Your task to perform on an android device: View the shopping cart on bestbuy. Search for "alienware area 51" on bestbuy, select the first entry, add it to the cart, then select checkout. Image 0: 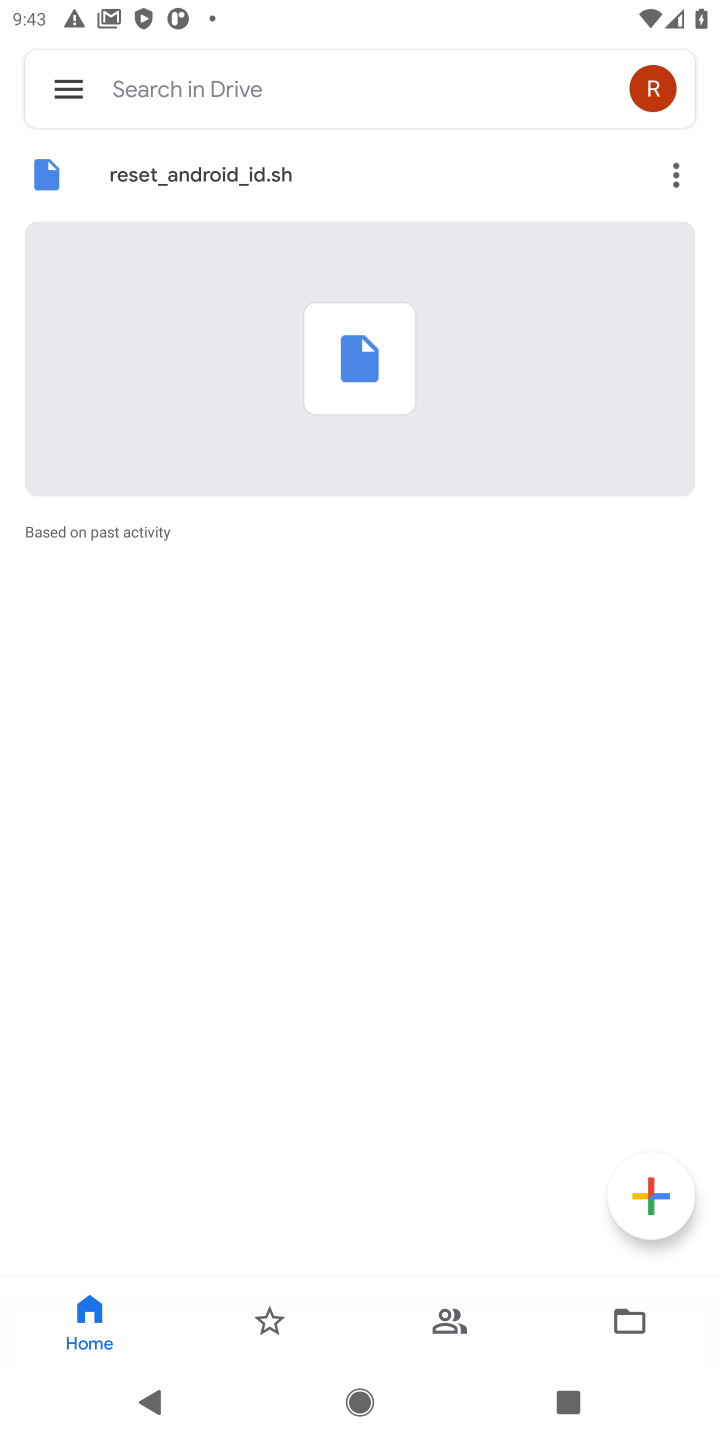
Step 0: press home button
Your task to perform on an android device: View the shopping cart on bestbuy. Search for "alienware area 51" on bestbuy, select the first entry, add it to the cart, then select checkout. Image 1: 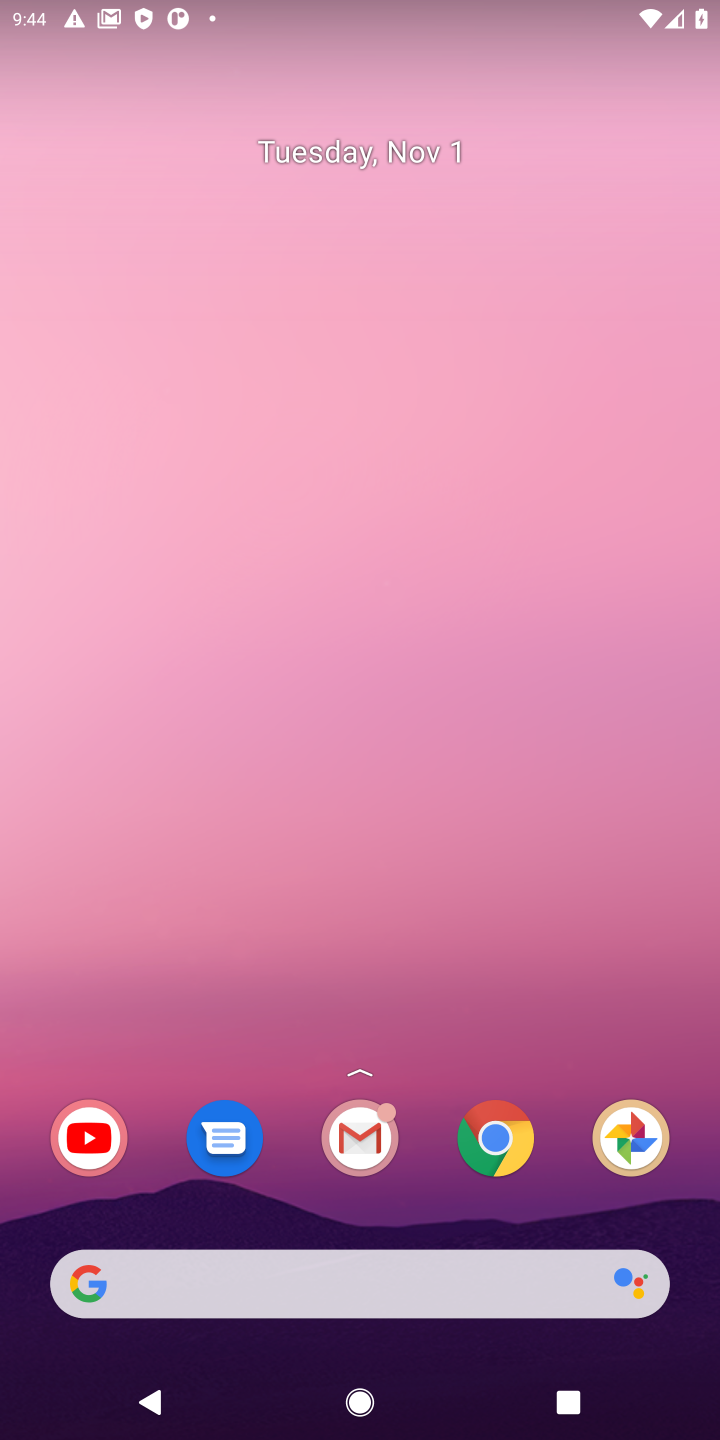
Step 1: click (492, 1154)
Your task to perform on an android device: View the shopping cart on bestbuy. Search for "alienware area 51" on bestbuy, select the first entry, add it to the cart, then select checkout. Image 2: 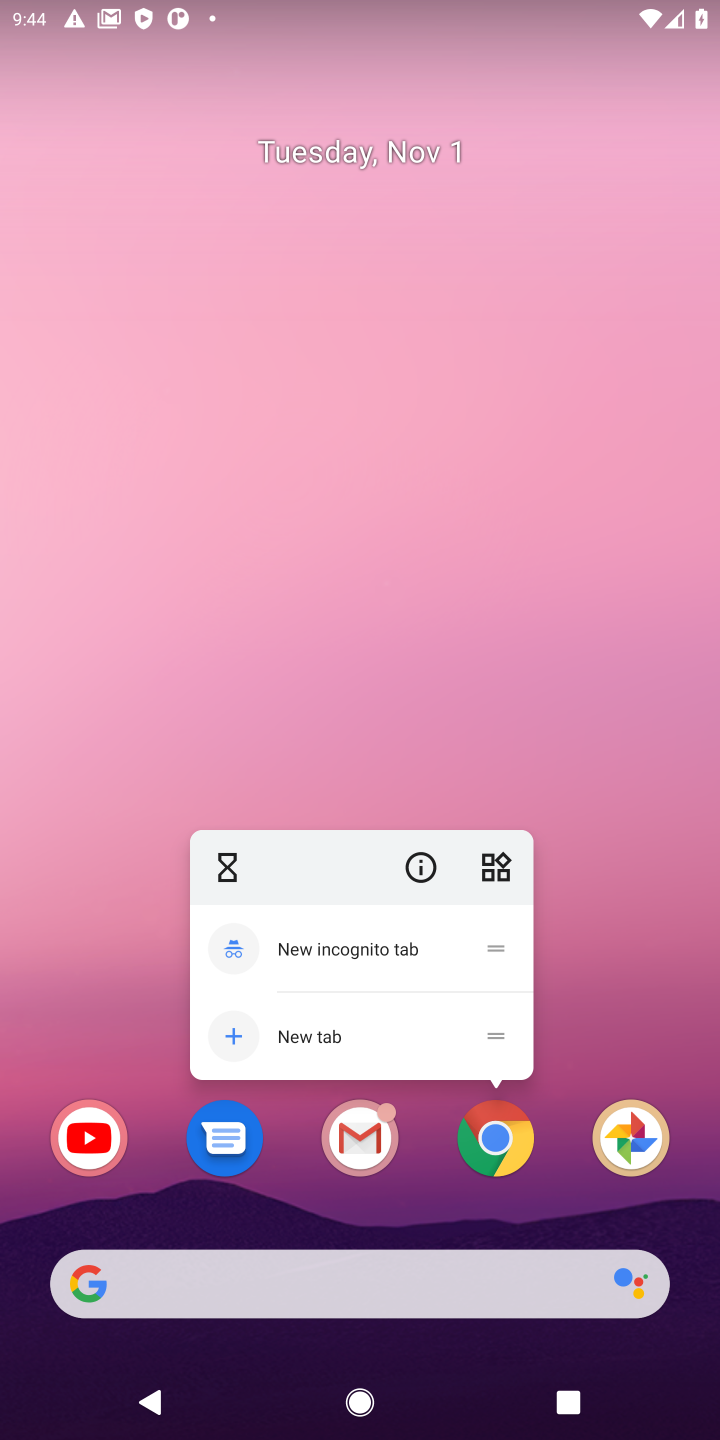
Step 2: click (494, 1154)
Your task to perform on an android device: View the shopping cart on bestbuy. Search for "alienware area 51" on bestbuy, select the first entry, add it to the cart, then select checkout. Image 3: 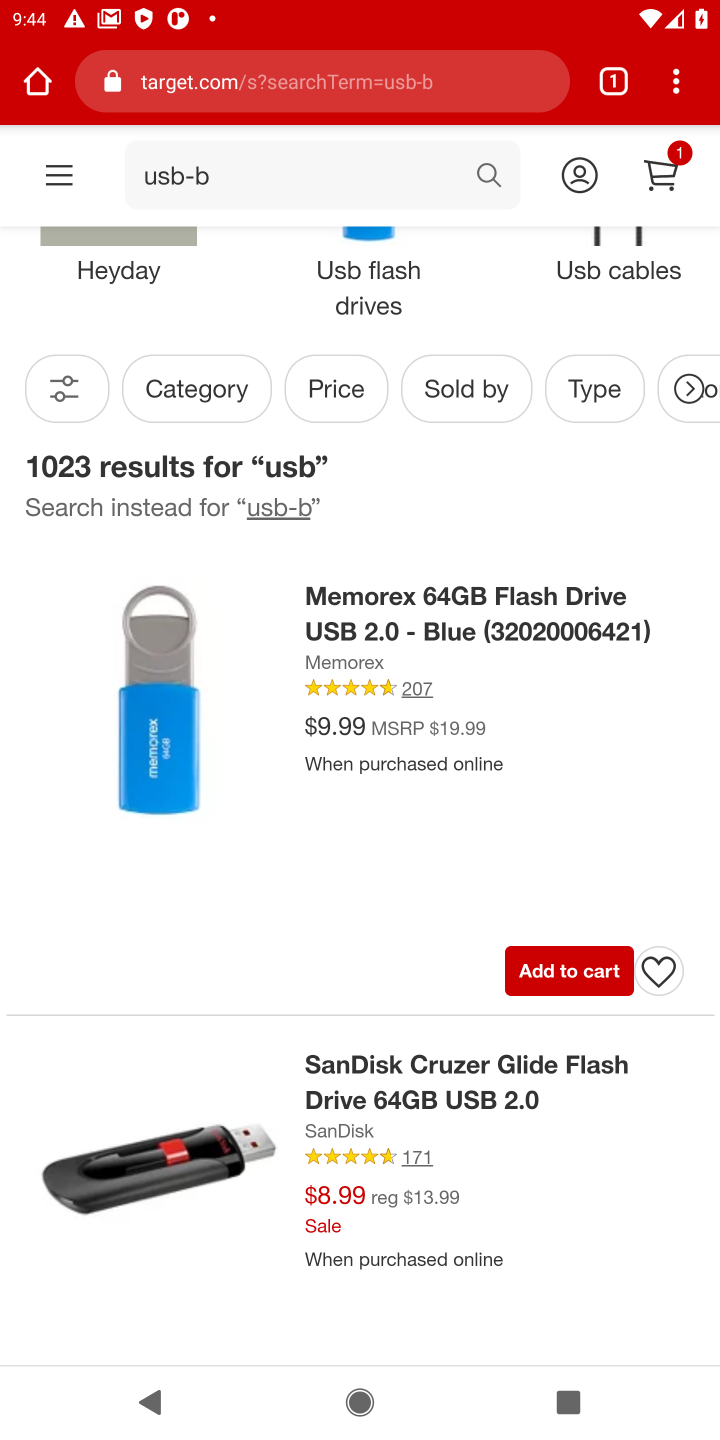
Step 3: click (323, 95)
Your task to perform on an android device: View the shopping cart on bestbuy. Search for "alienware area 51" on bestbuy, select the first entry, add it to the cart, then select checkout. Image 4: 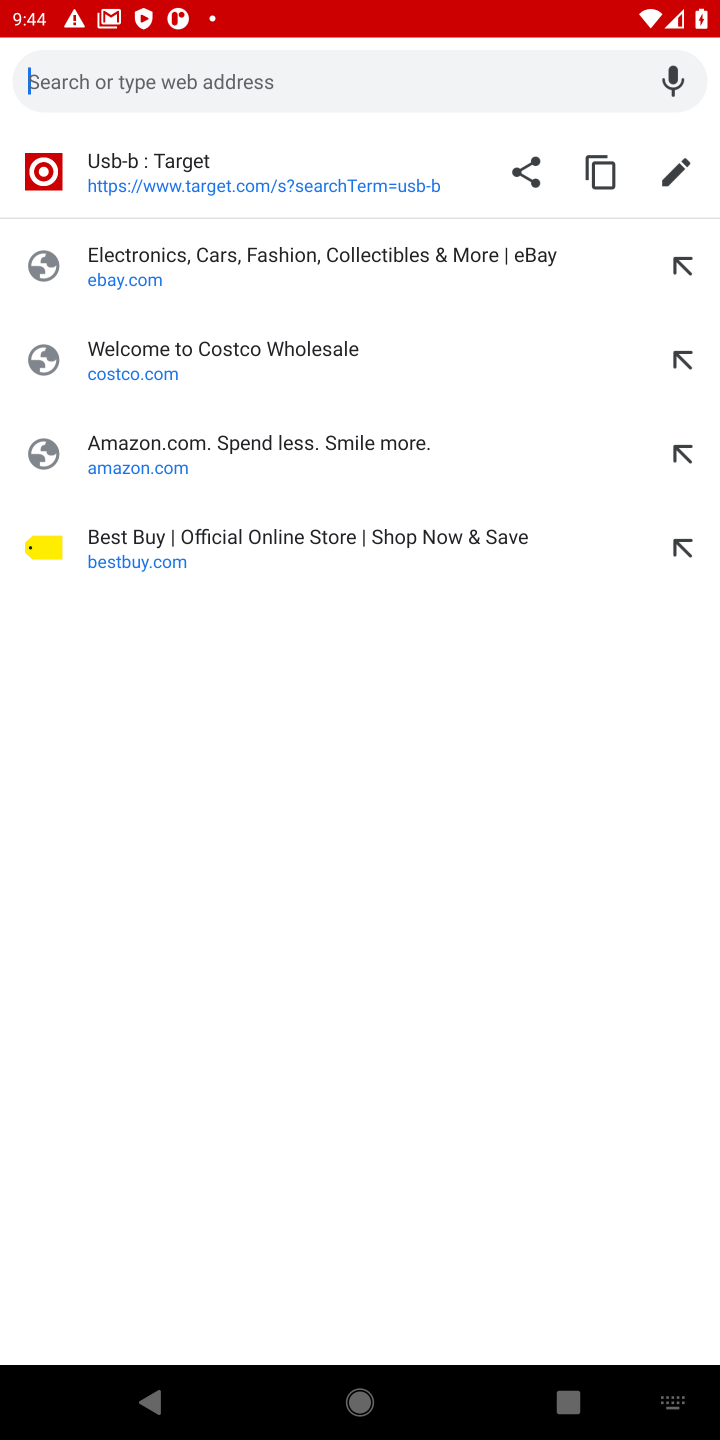
Step 4: click (166, 560)
Your task to perform on an android device: View the shopping cart on bestbuy. Search for "alienware area 51" on bestbuy, select the first entry, add it to the cart, then select checkout. Image 5: 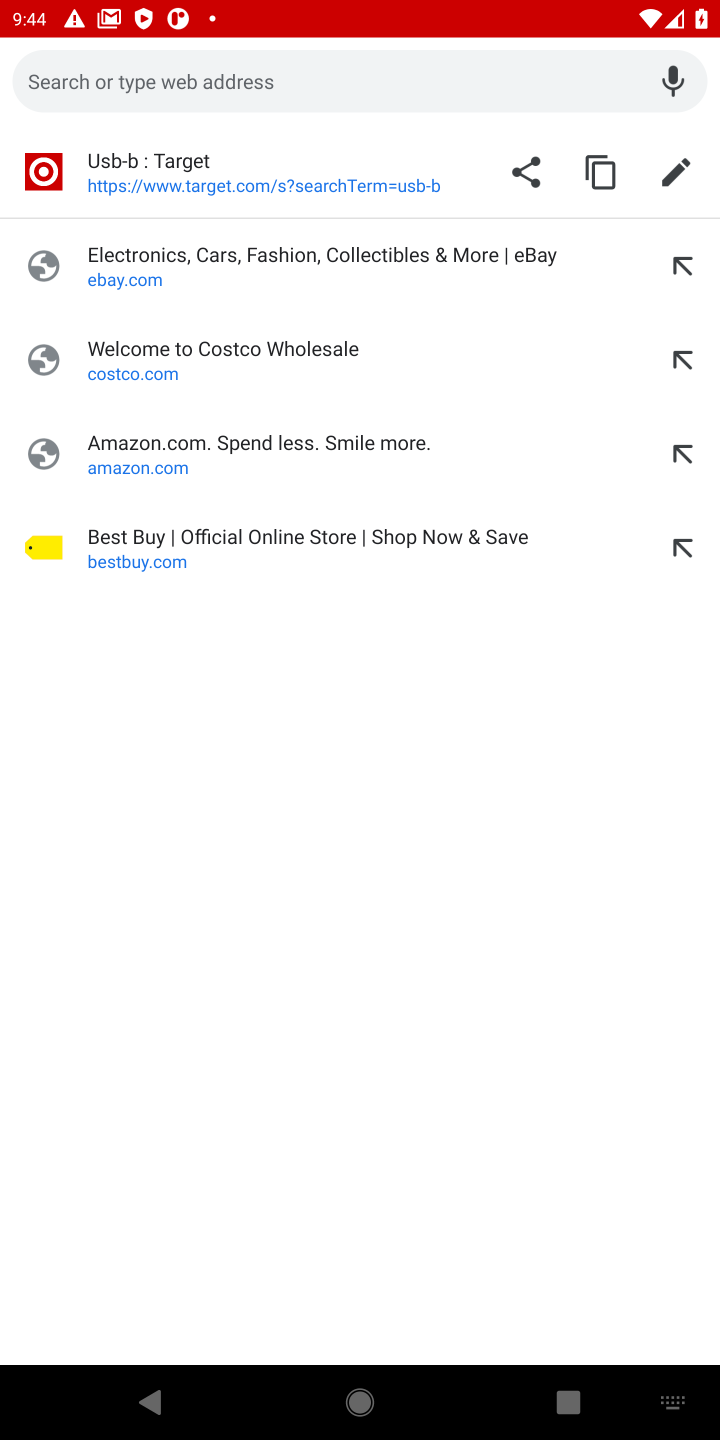
Step 5: click (166, 560)
Your task to perform on an android device: View the shopping cart on bestbuy. Search for "alienware area 51" on bestbuy, select the first entry, add it to the cart, then select checkout. Image 6: 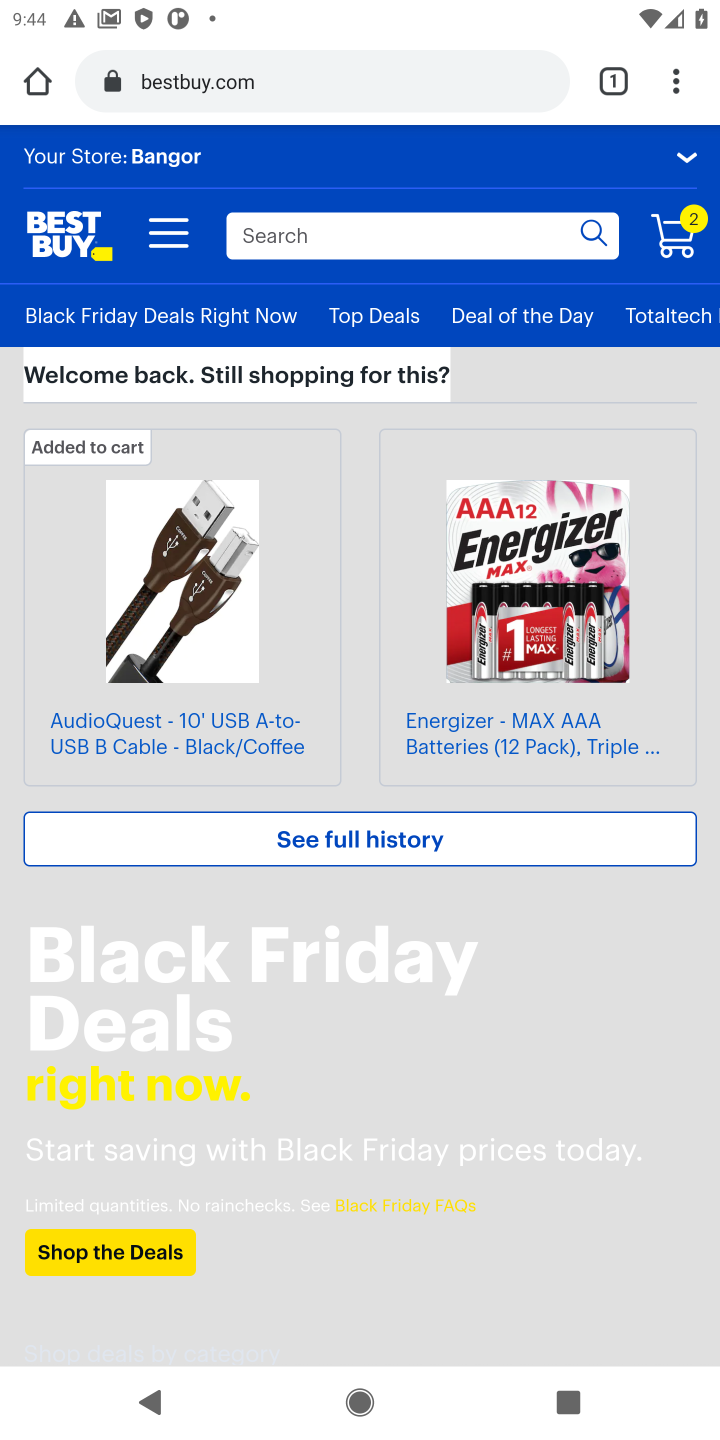
Step 6: click (694, 233)
Your task to perform on an android device: View the shopping cart on bestbuy. Search for "alienware area 51" on bestbuy, select the first entry, add it to the cart, then select checkout. Image 7: 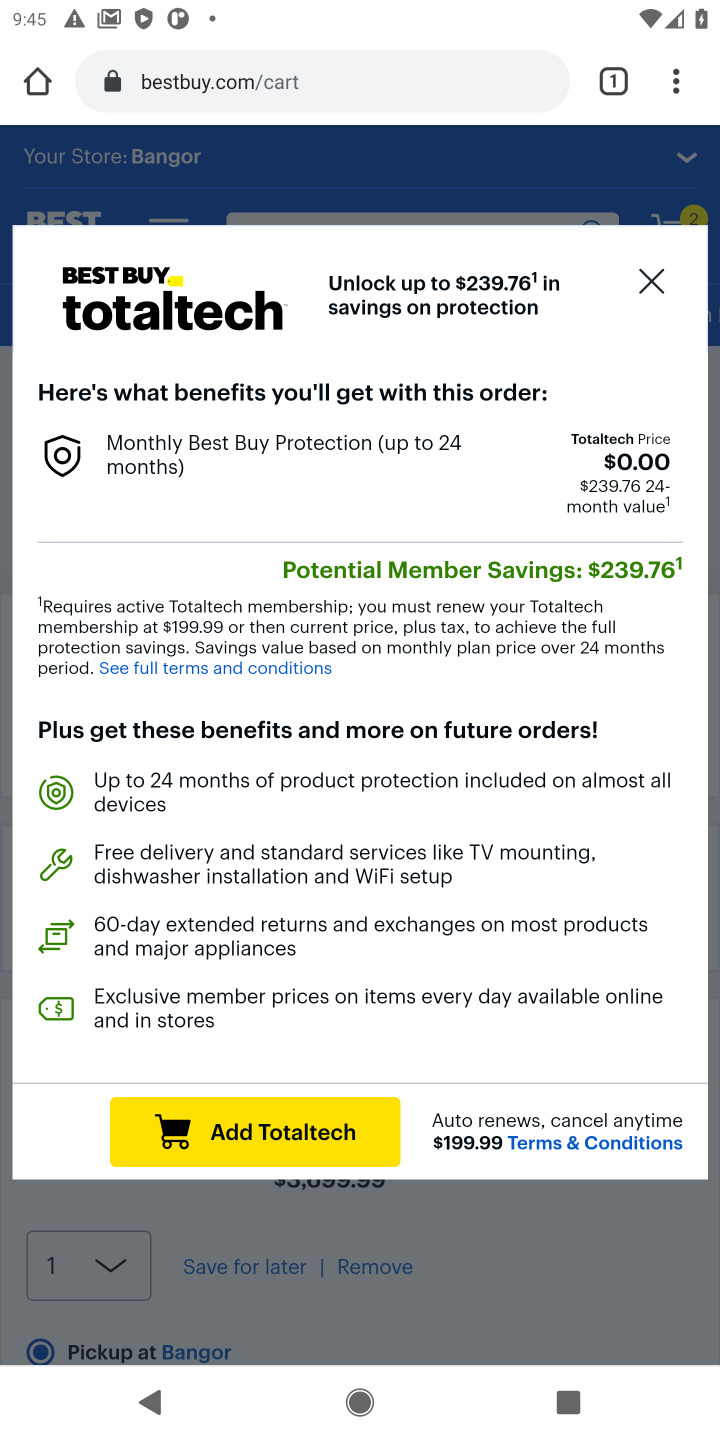
Step 7: click (651, 293)
Your task to perform on an android device: View the shopping cart on bestbuy. Search for "alienware area 51" on bestbuy, select the first entry, add it to the cart, then select checkout. Image 8: 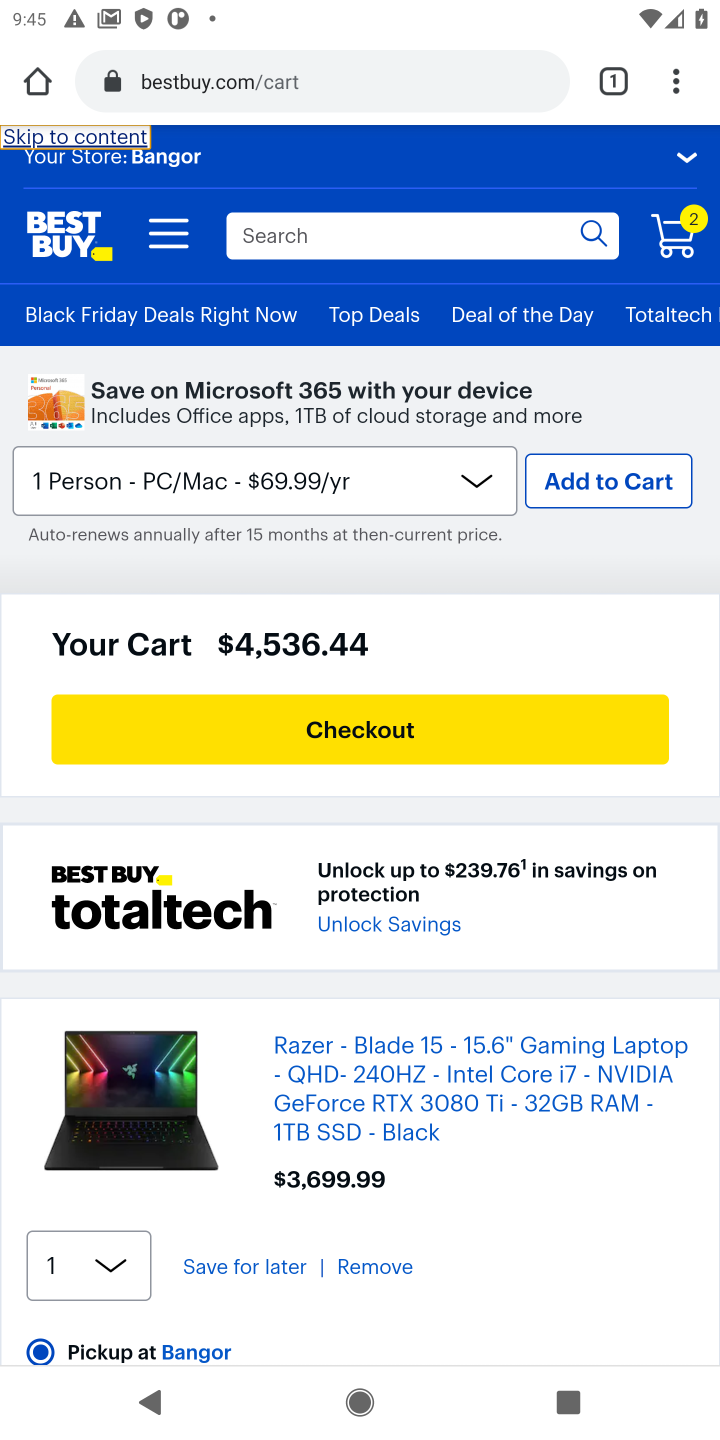
Step 8: click (278, 244)
Your task to perform on an android device: View the shopping cart on bestbuy. Search for "alienware area 51" on bestbuy, select the first entry, add it to the cart, then select checkout. Image 9: 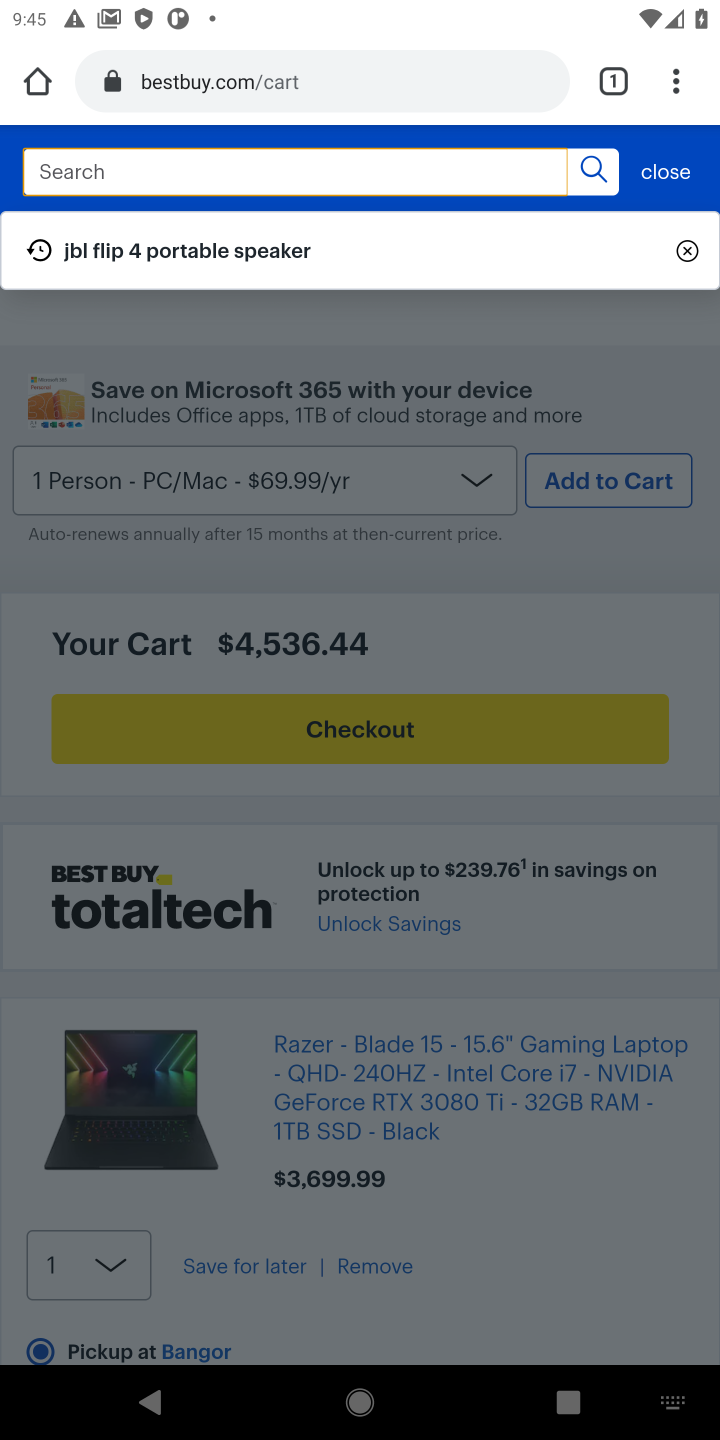
Step 9: type "alienware area 51"
Your task to perform on an android device: View the shopping cart on bestbuy. Search for "alienware area 51" on bestbuy, select the first entry, add it to the cart, then select checkout. Image 10: 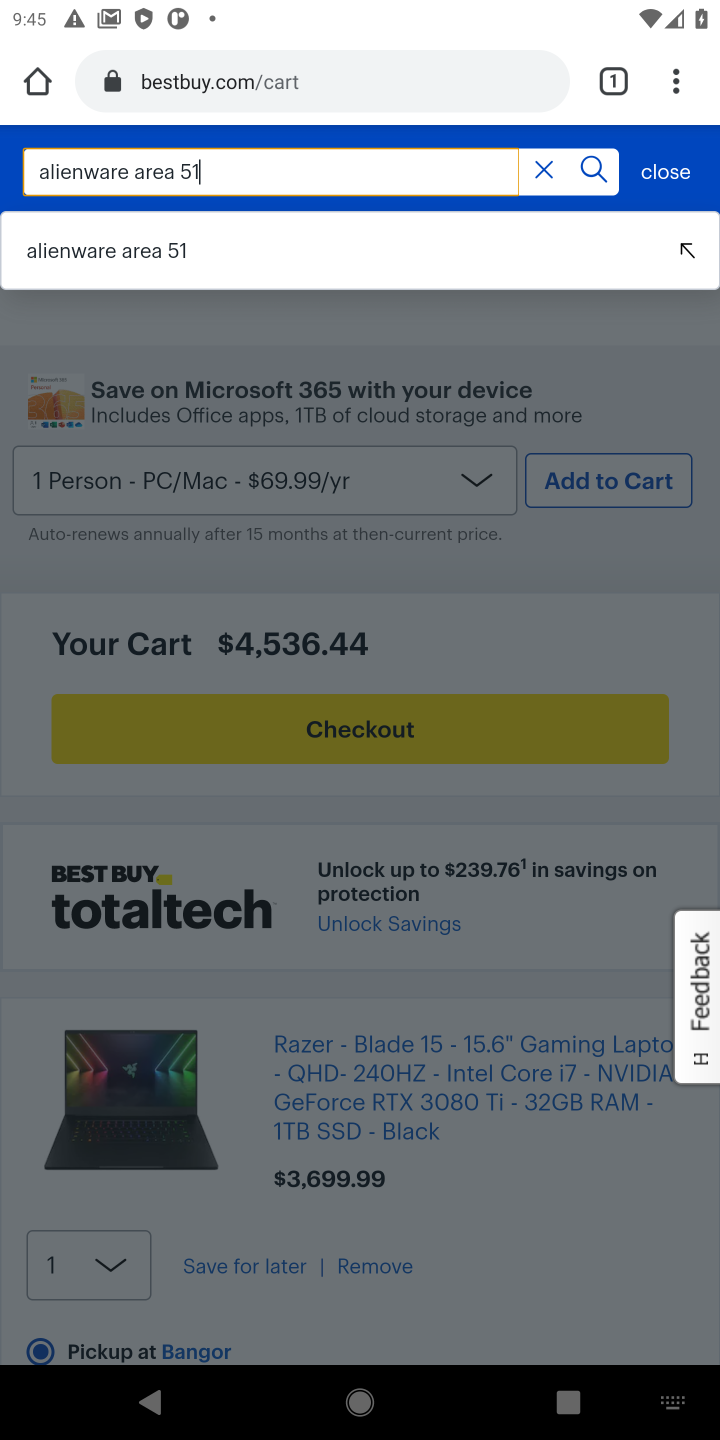
Step 10: click (156, 259)
Your task to perform on an android device: View the shopping cart on bestbuy. Search for "alienware area 51" on bestbuy, select the first entry, add it to the cart, then select checkout. Image 11: 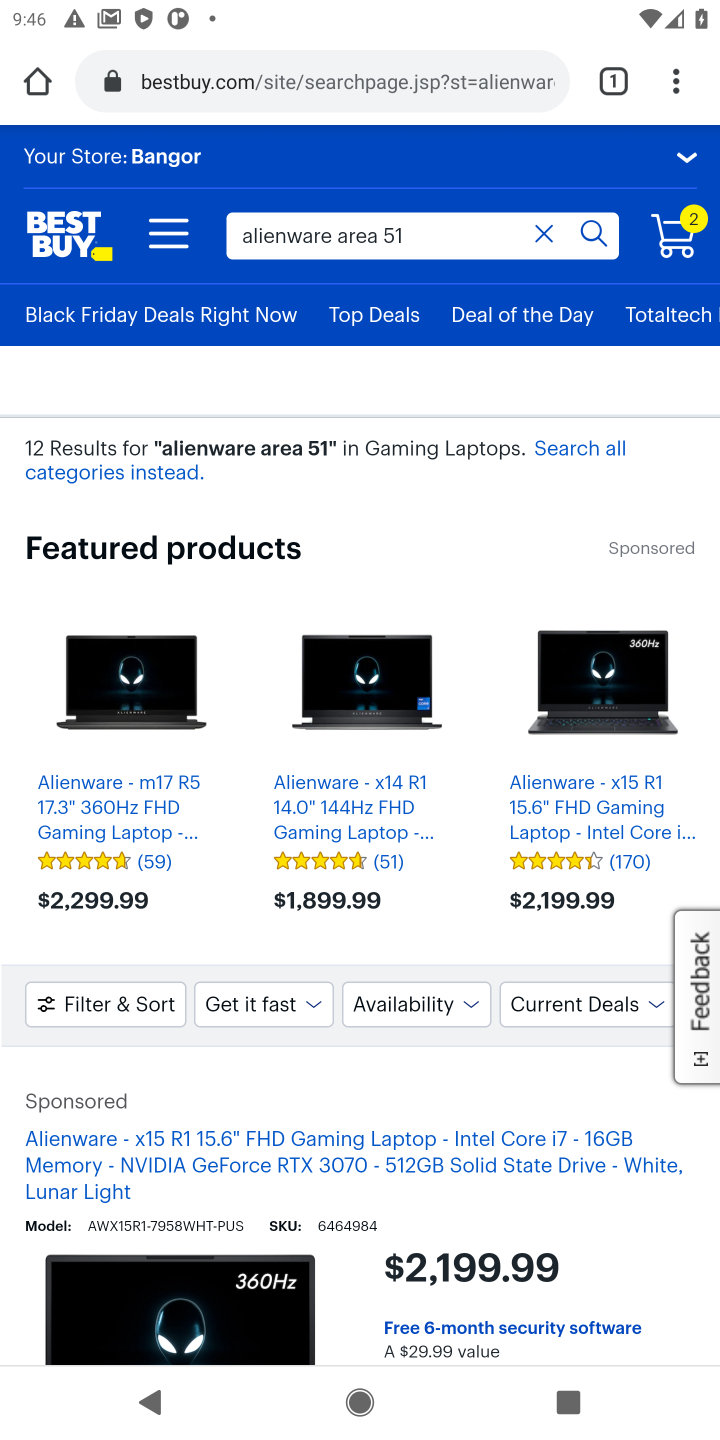
Step 11: drag from (297, 1177) to (293, 794)
Your task to perform on an android device: View the shopping cart on bestbuy. Search for "alienware area 51" on bestbuy, select the first entry, add it to the cart, then select checkout. Image 12: 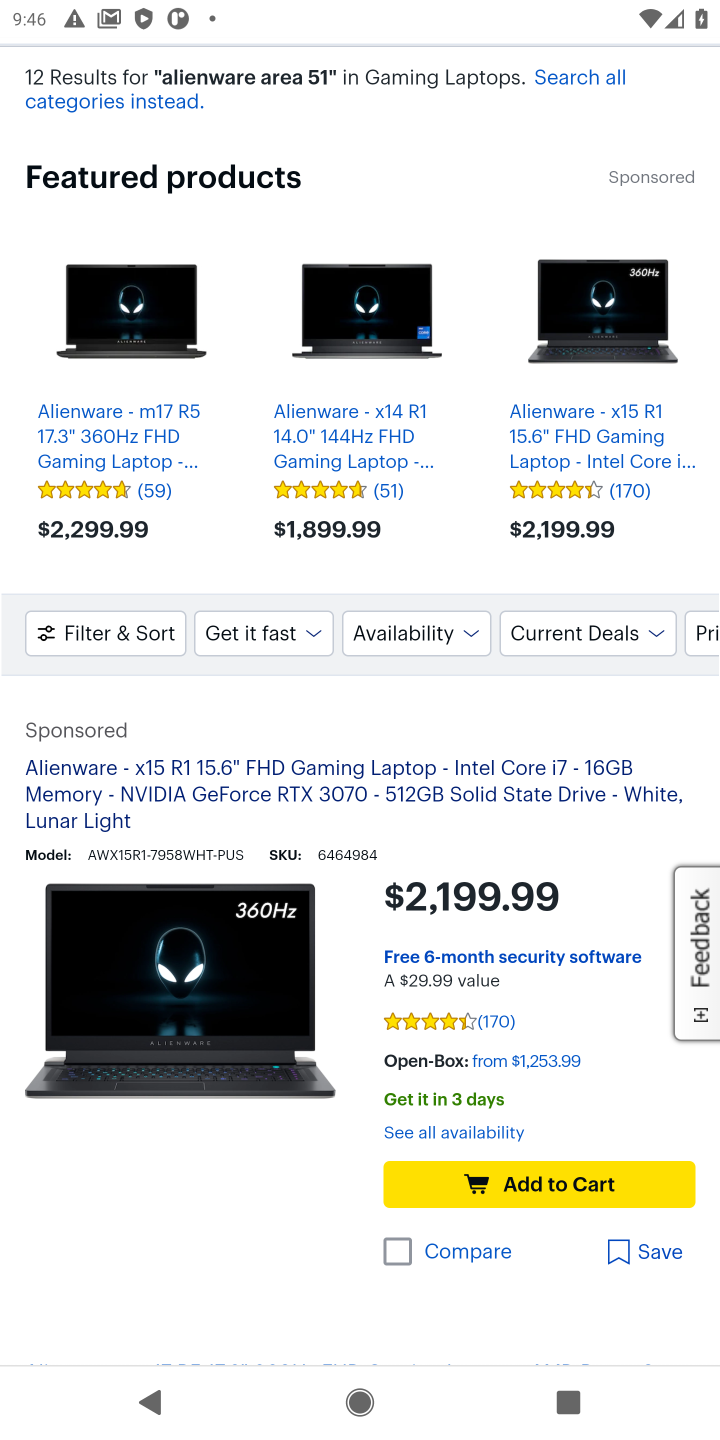
Step 12: click (369, 984)
Your task to perform on an android device: View the shopping cart on bestbuy. Search for "alienware area 51" on bestbuy, select the first entry, add it to the cart, then select checkout. Image 13: 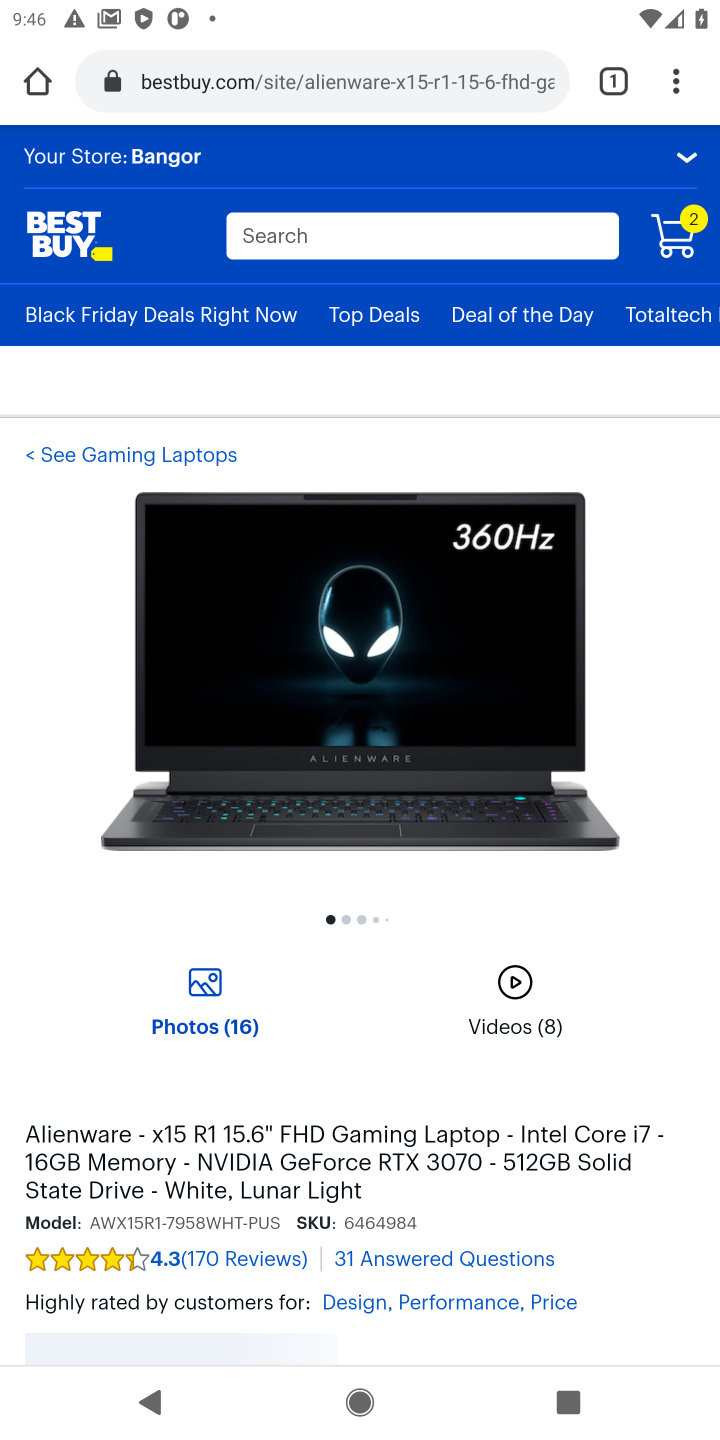
Step 13: drag from (334, 1088) to (336, 545)
Your task to perform on an android device: View the shopping cart on bestbuy. Search for "alienware area 51" on bestbuy, select the first entry, add it to the cart, then select checkout. Image 14: 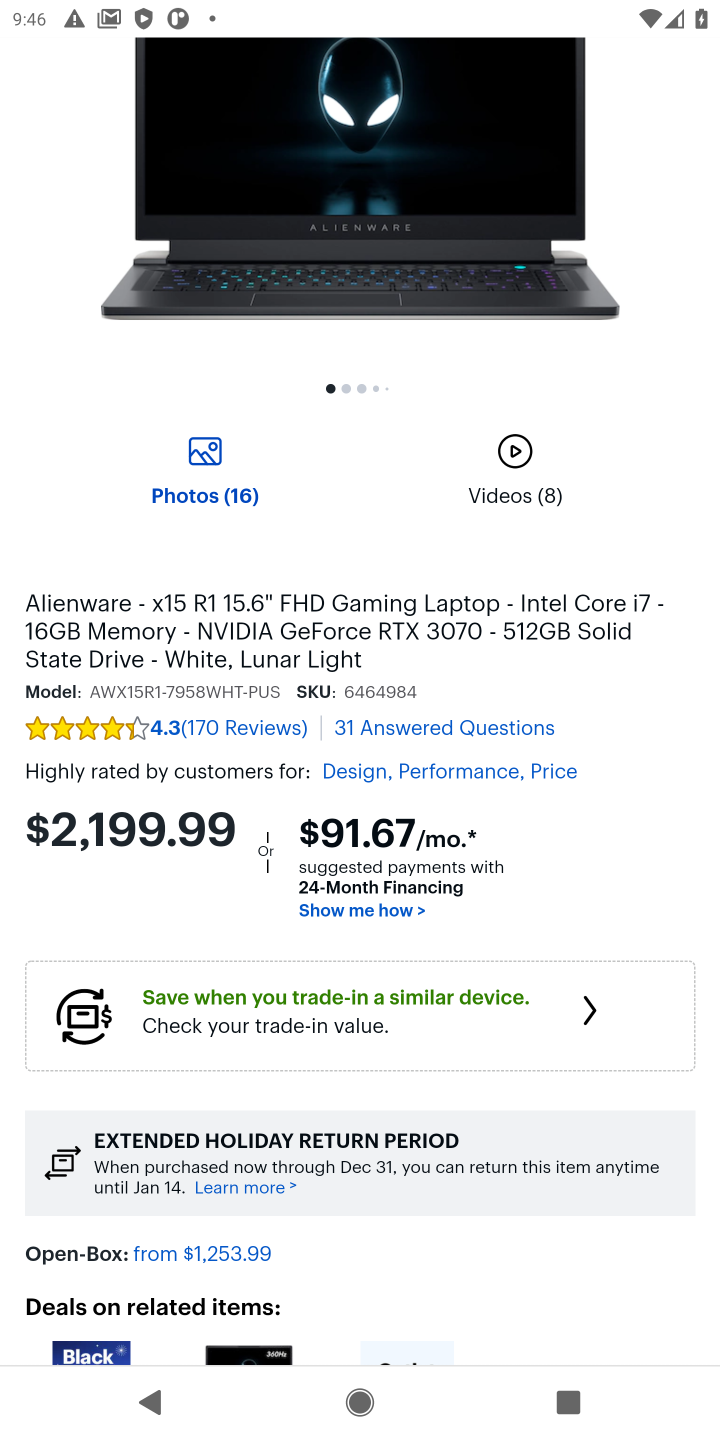
Step 14: drag from (296, 1019) to (286, 601)
Your task to perform on an android device: View the shopping cart on bestbuy. Search for "alienware area 51" on bestbuy, select the first entry, add it to the cart, then select checkout. Image 15: 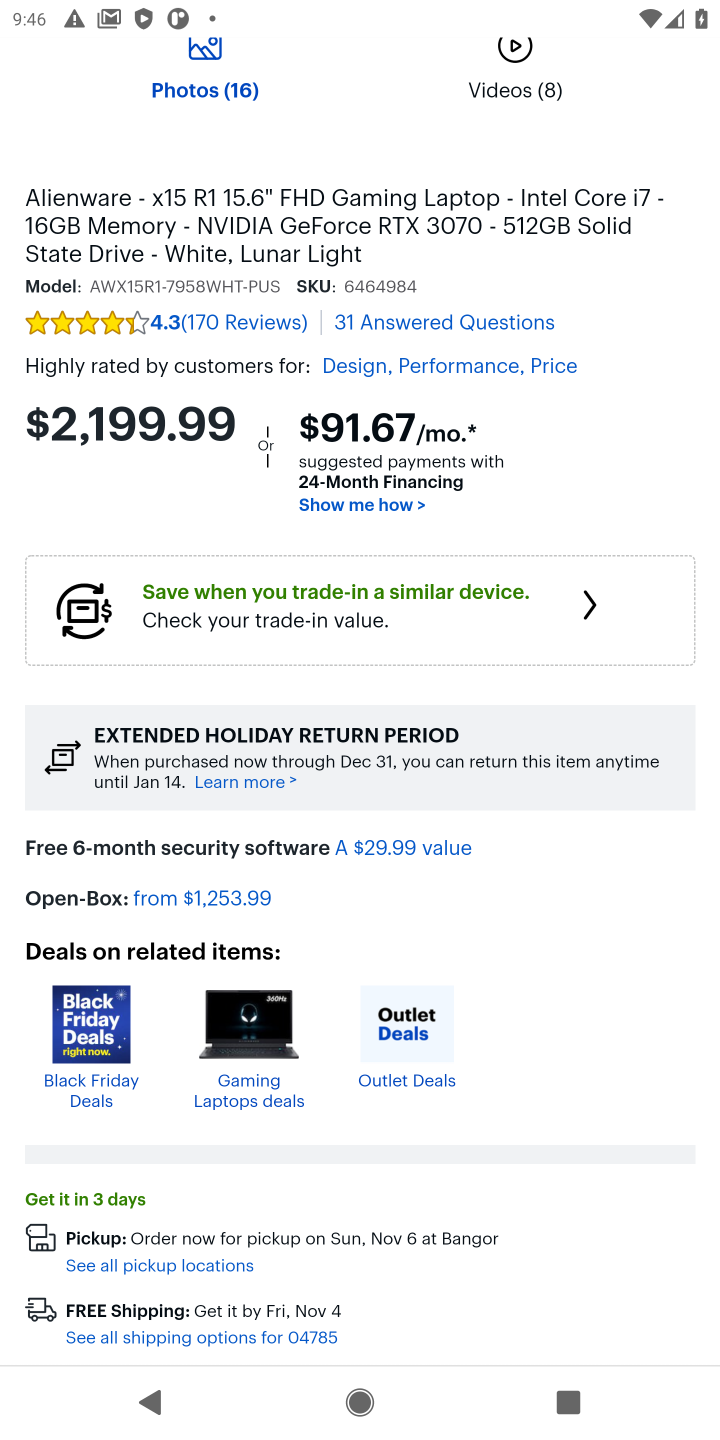
Step 15: drag from (281, 971) to (268, 438)
Your task to perform on an android device: View the shopping cart on bestbuy. Search for "alienware area 51" on bestbuy, select the first entry, add it to the cart, then select checkout. Image 16: 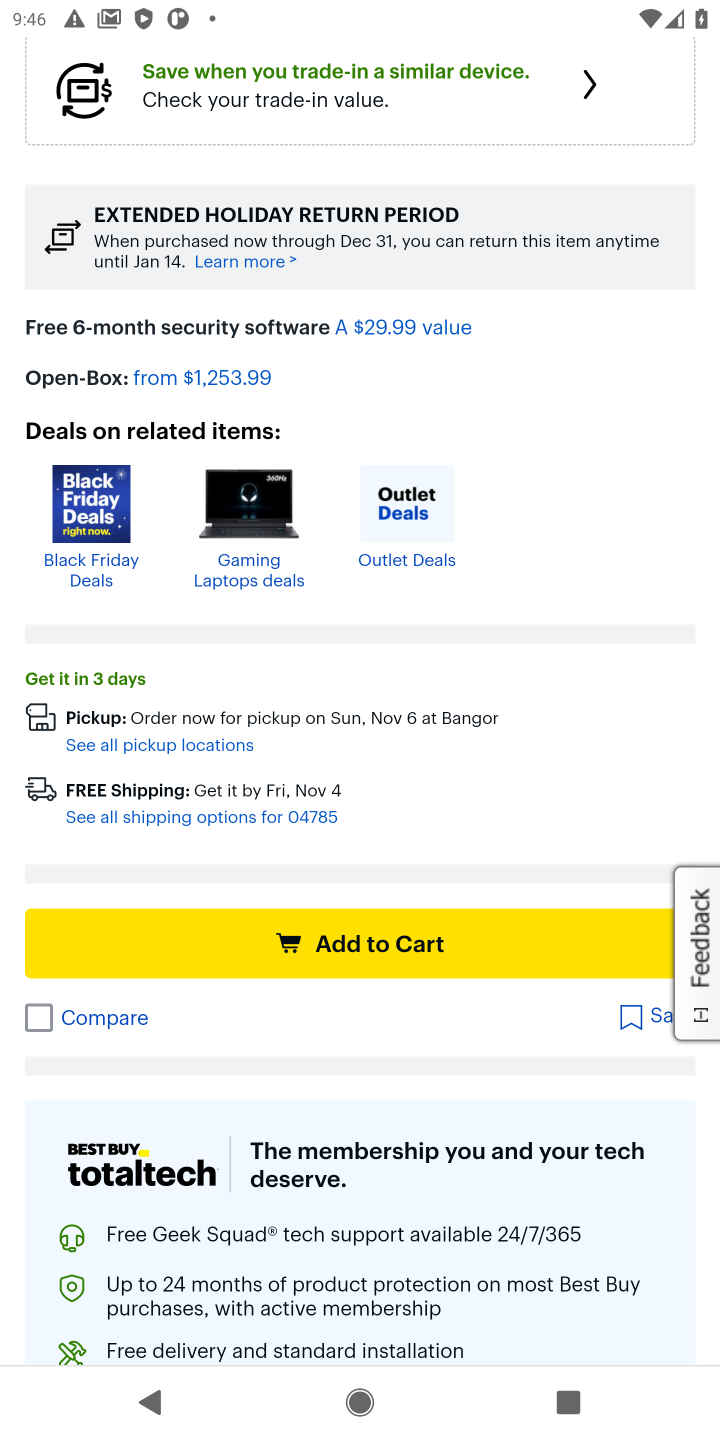
Step 16: click (326, 941)
Your task to perform on an android device: View the shopping cart on bestbuy. Search for "alienware area 51" on bestbuy, select the first entry, add it to the cart, then select checkout. Image 17: 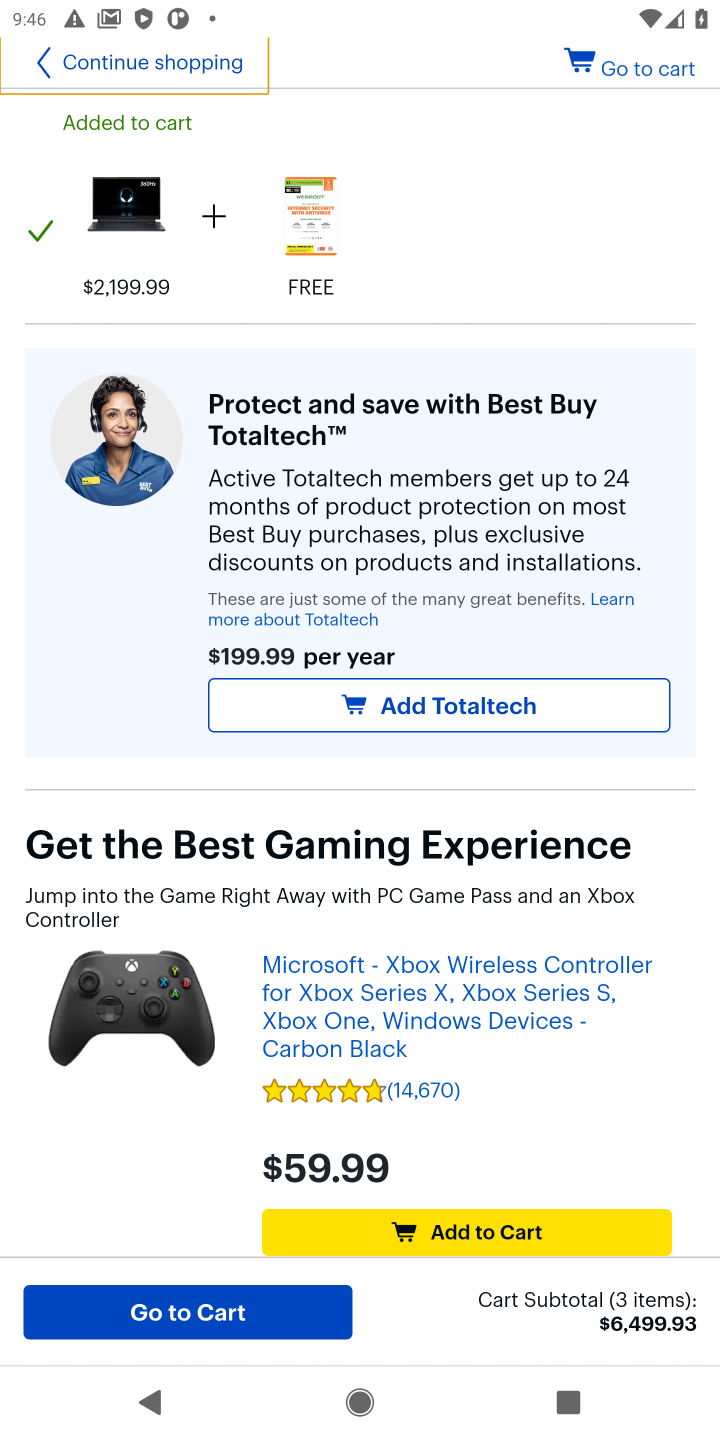
Step 17: click (614, 75)
Your task to perform on an android device: View the shopping cart on bestbuy. Search for "alienware area 51" on bestbuy, select the first entry, add it to the cart, then select checkout. Image 18: 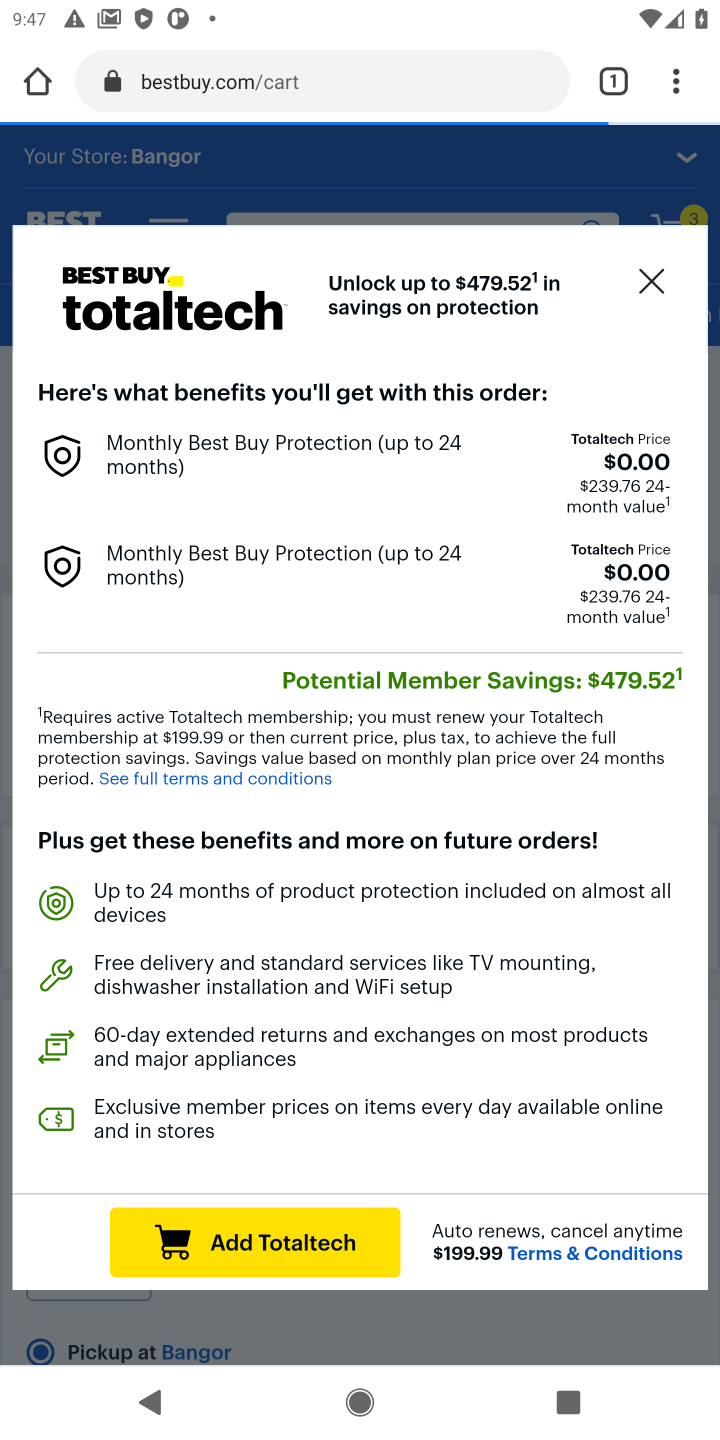
Step 18: click (655, 285)
Your task to perform on an android device: View the shopping cart on bestbuy. Search for "alienware area 51" on bestbuy, select the first entry, add it to the cart, then select checkout. Image 19: 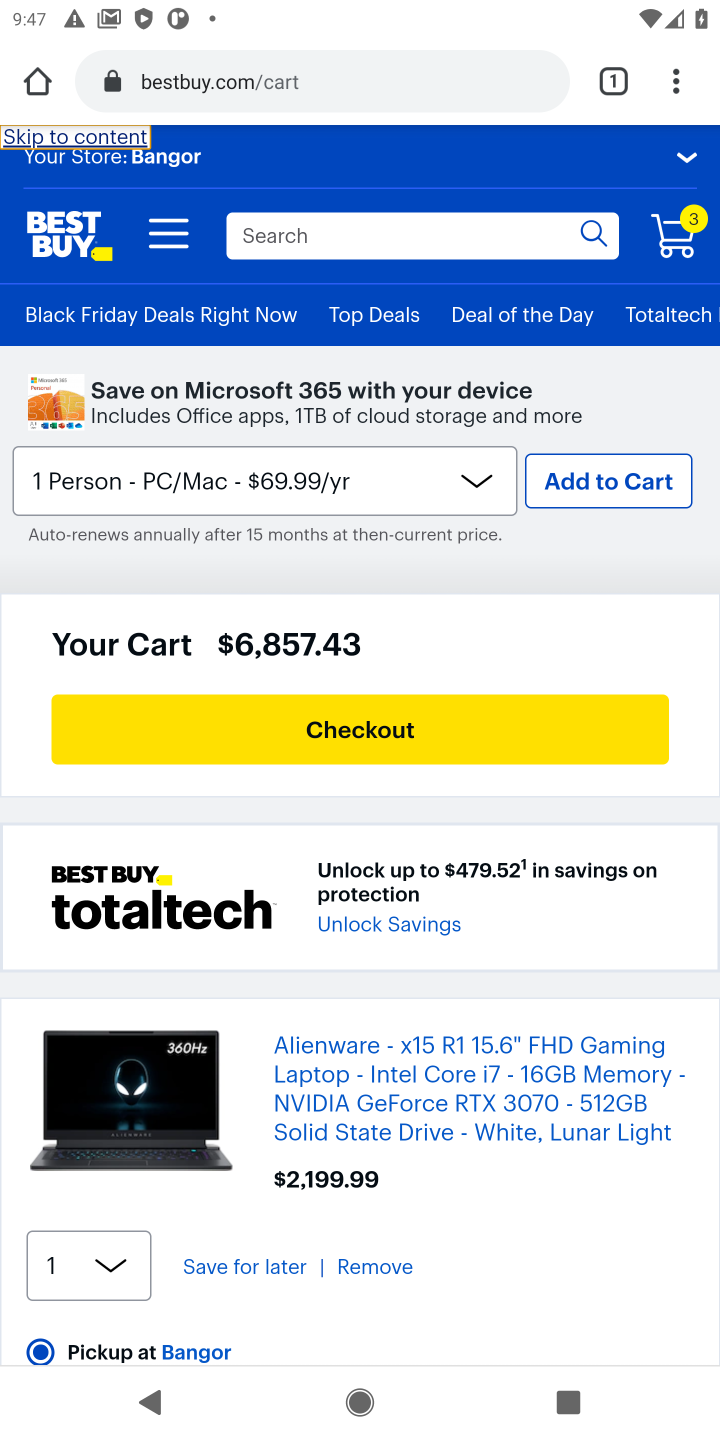
Step 19: click (350, 740)
Your task to perform on an android device: View the shopping cart on bestbuy. Search for "alienware area 51" on bestbuy, select the first entry, add it to the cart, then select checkout. Image 20: 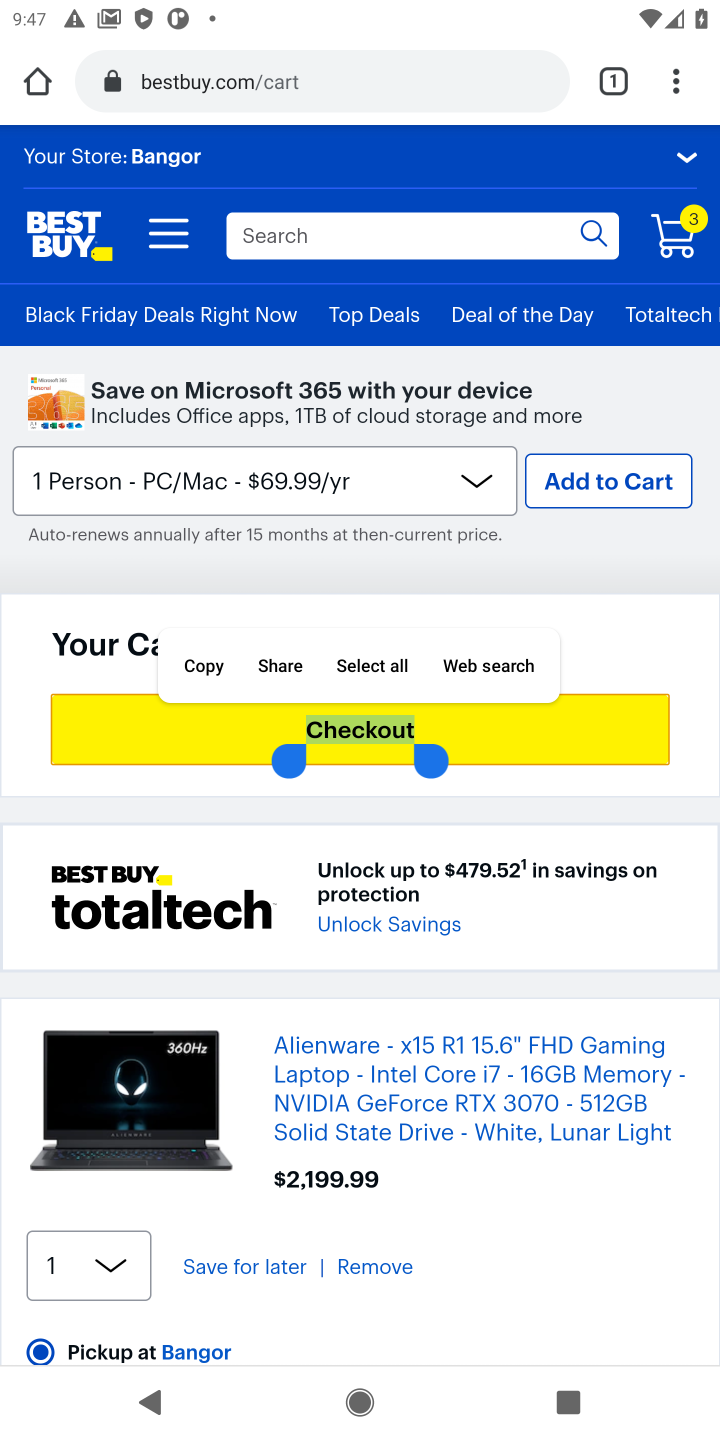
Step 20: click (380, 730)
Your task to perform on an android device: View the shopping cart on bestbuy. Search for "alienware area 51" on bestbuy, select the first entry, add it to the cart, then select checkout. Image 21: 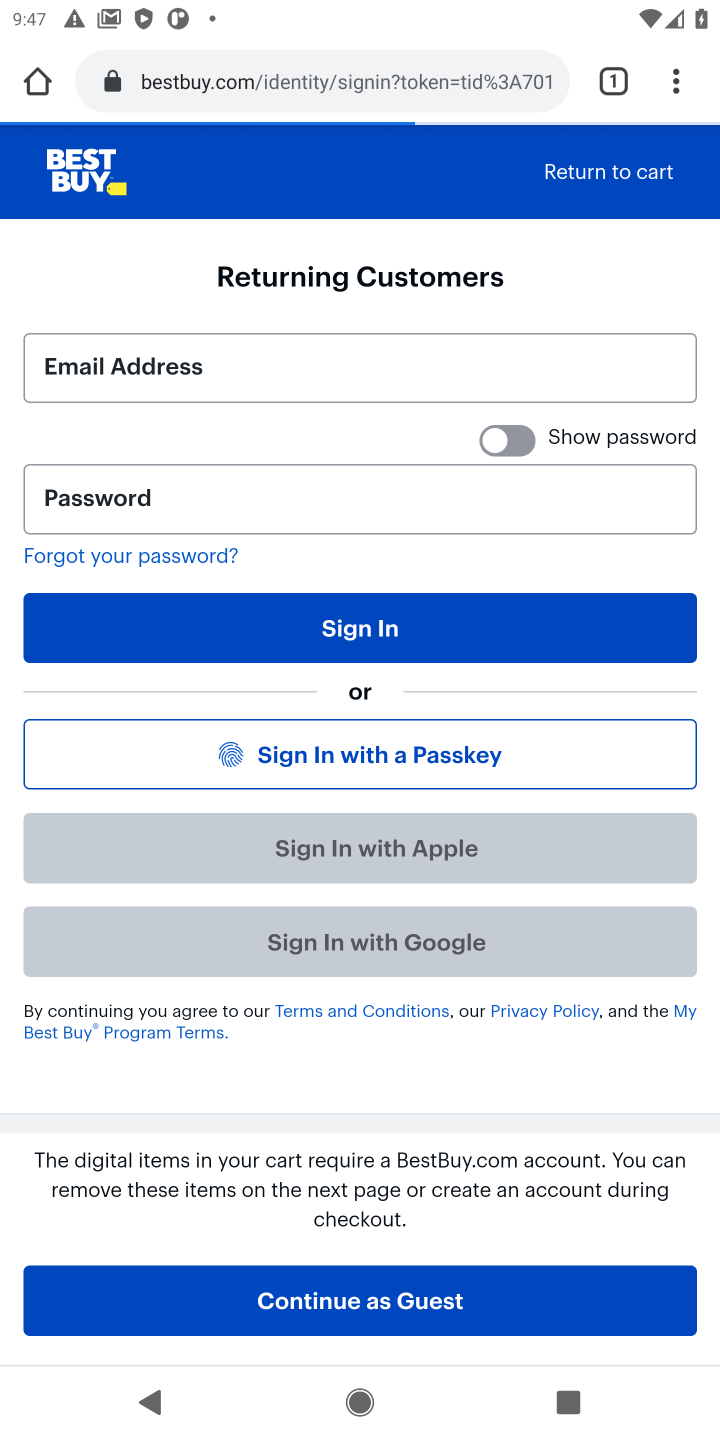
Step 21: task complete